Your task to perform on an android device: turn on bluetooth scan Image 0: 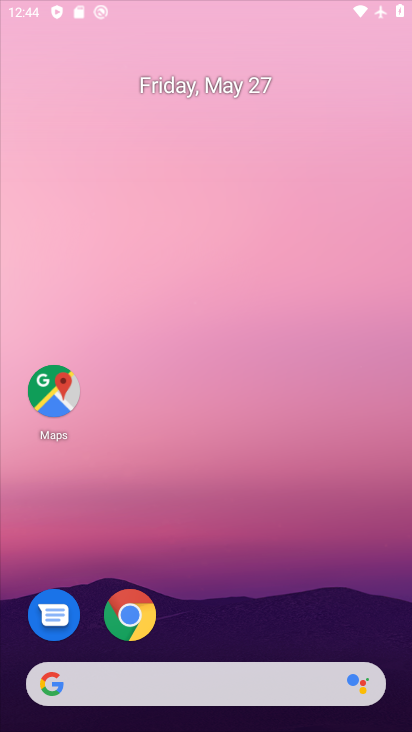
Step 0: press home button
Your task to perform on an android device: turn on bluetooth scan Image 1: 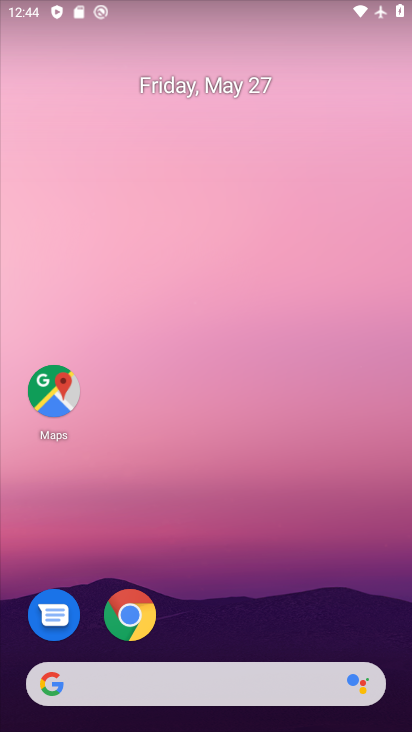
Step 1: drag from (231, 623) to (268, 135)
Your task to perform on an android device: turn on bluetooth scan Image 2: 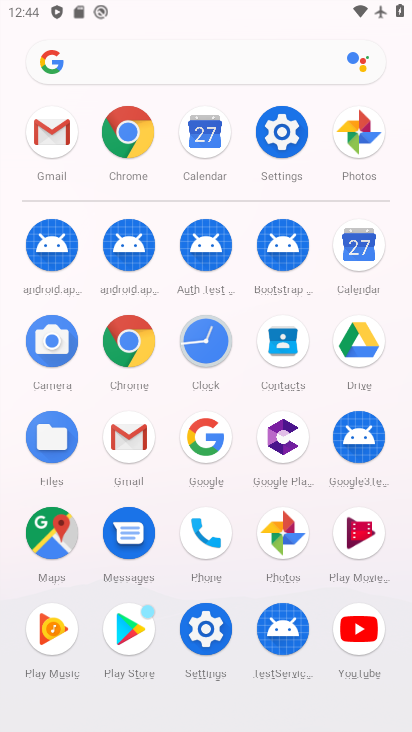
Step 2: click (274, 143)
Your task to perform on an android device: turn on bluetooth scan Image 3: 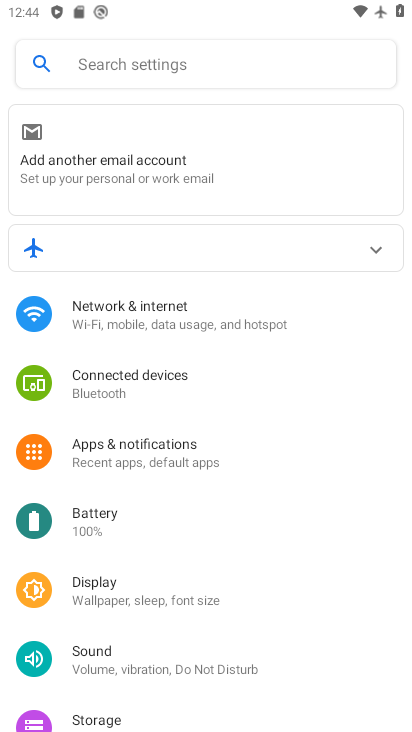
Step 3: drag from (309, 695) to (324, 311)
Your task to perform on an android device: turn on bluetooth scan Image 4: 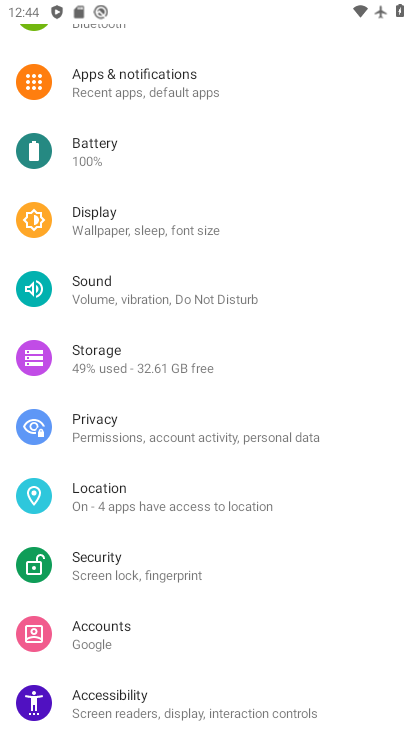
Step 4: click (95, 493)
Your task to perform on an android device: turn on bluetooth scan Image 5: 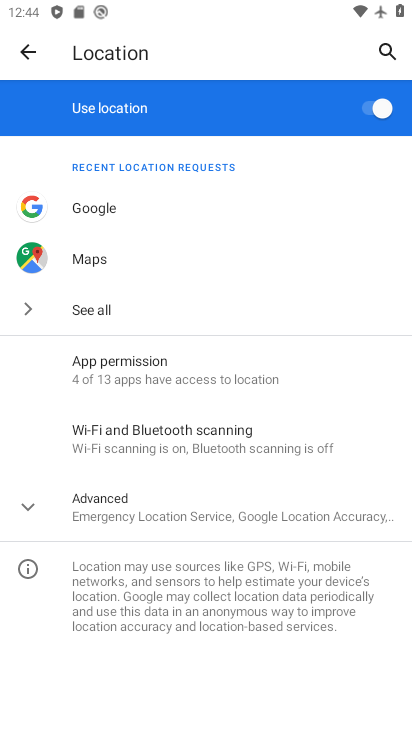
Step 5: click (134, 428)
Your task to perform on an android device: turn on bluetooth scan Image 6: 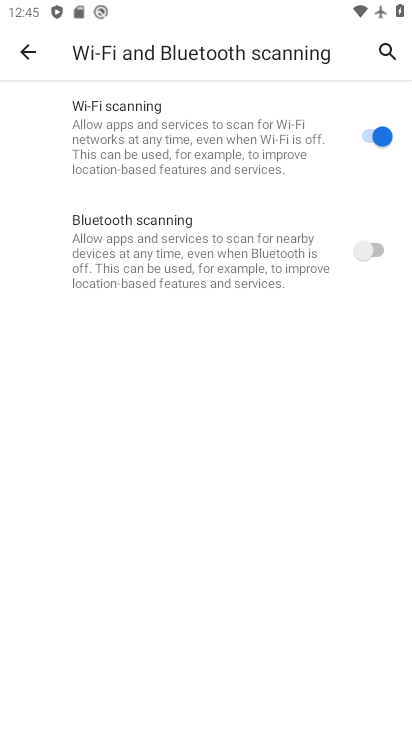
Step 6: click (367, 251)
Your task to perform on an android device: turn on bluetooth scan Image 7: 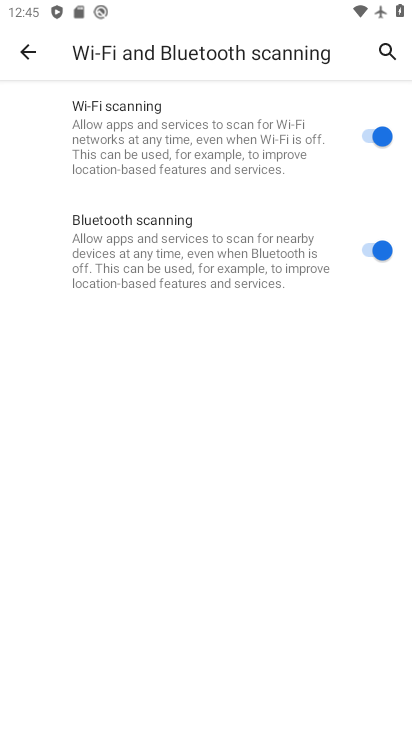
Step 7: task complete